Your task to perform on an android device: turn on location history Image 0: 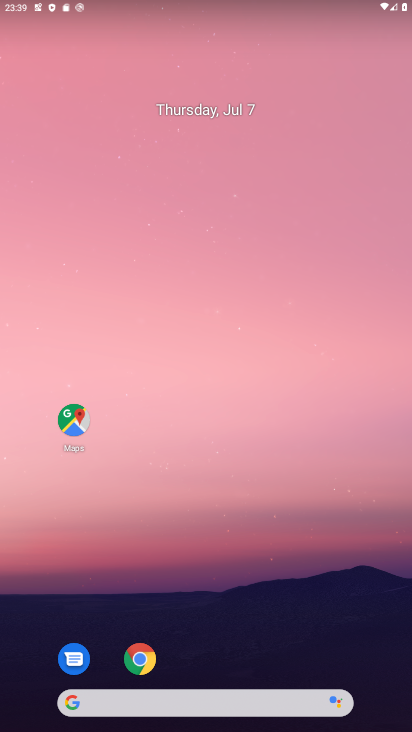
Step 0: drag from (189, 662) to (312, 1)
Your task to perform on an android device: turn on location history Image 1: 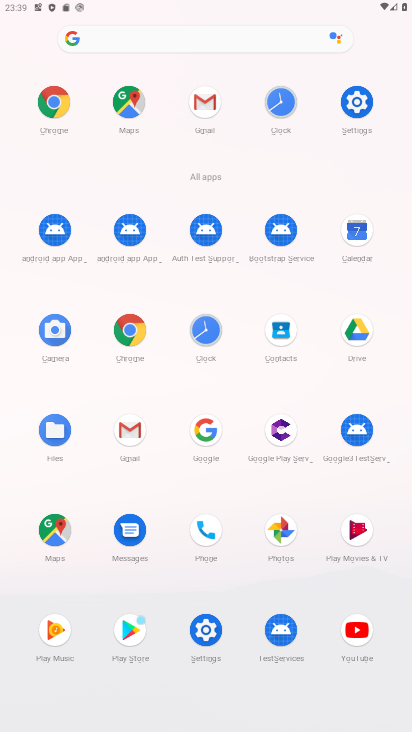
Step 1: click (355, 99)
Your task to perform on an android device: turn on location history Image 2: 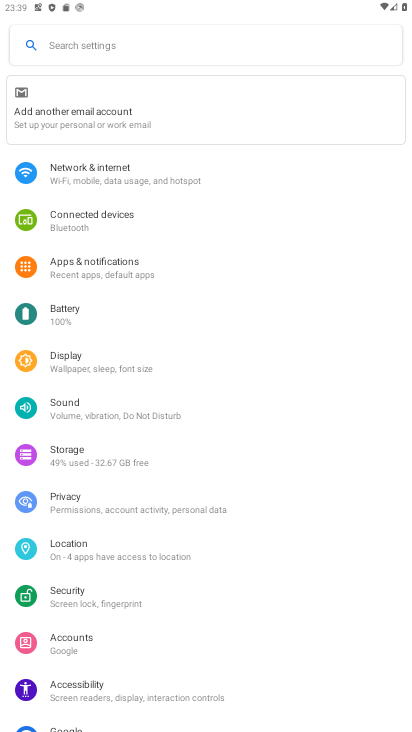
Step 2: click (81, 545)
Your task to perform on an android device: turn on location history Image 3: 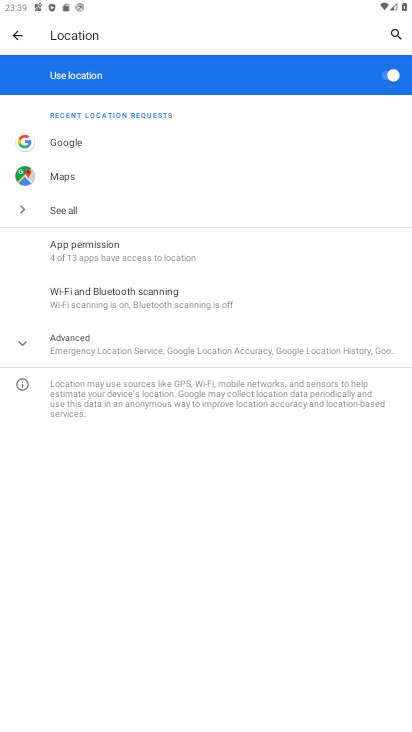
Step 3: click (83, 338)
Your task to perform on an android device: turn on location history Image 4: 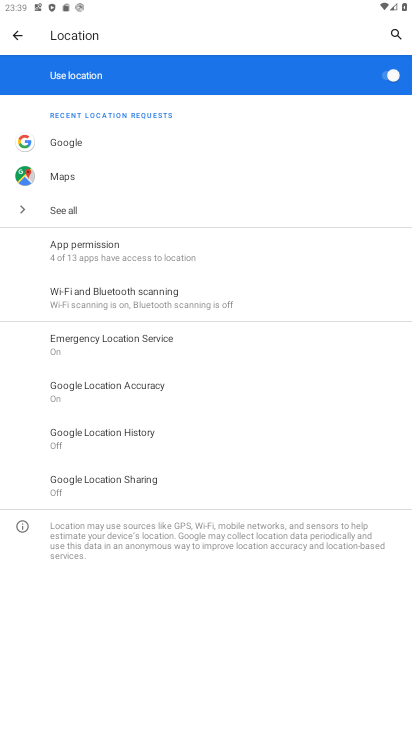
Step 4: click (118, 387)
Your task to perform on an android device: turn on location history Image 5: 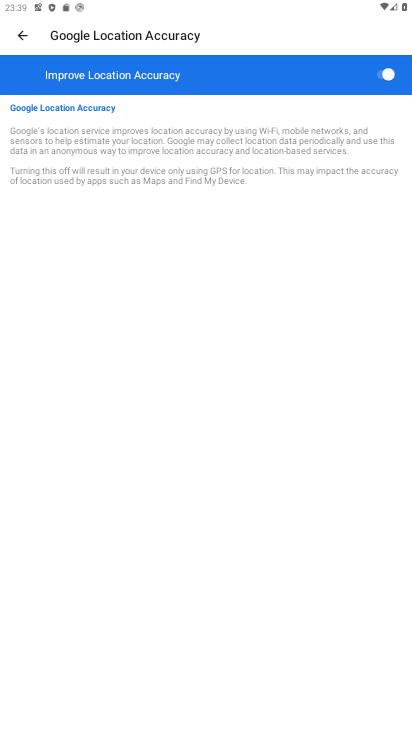
Step 5: task complete